Your task to perform on an android device: Open Chrome and go to settings Image 0: 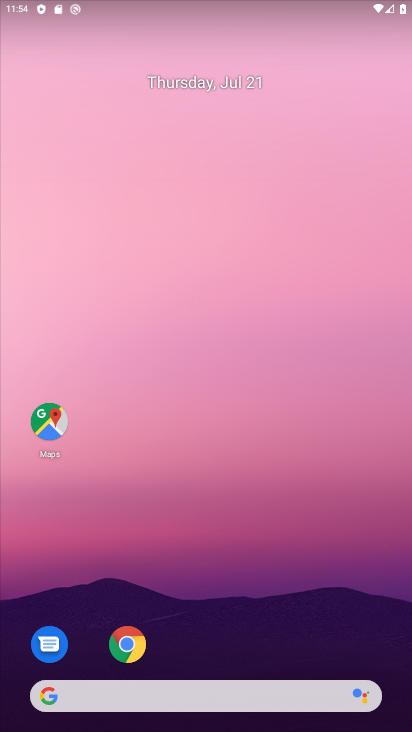
Step 0: drag from (206, 672) to (282, 165)
Your task to perform on an android device: Open Chrome and go to settings Image 1: 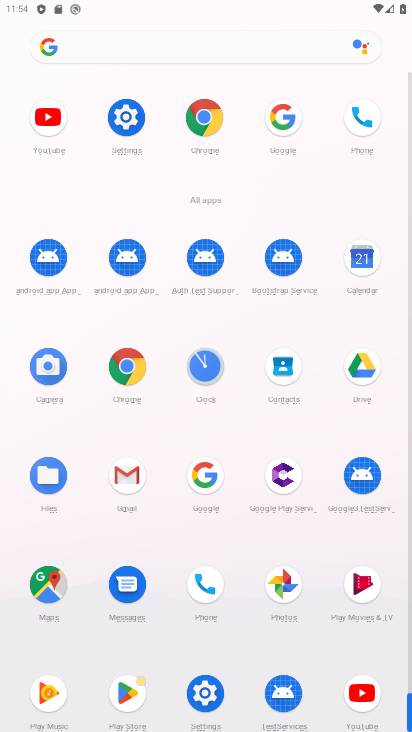
Step 1: click (203, 137)
Your task to perform on an android device: Open Chrome and go to settings Image 2: 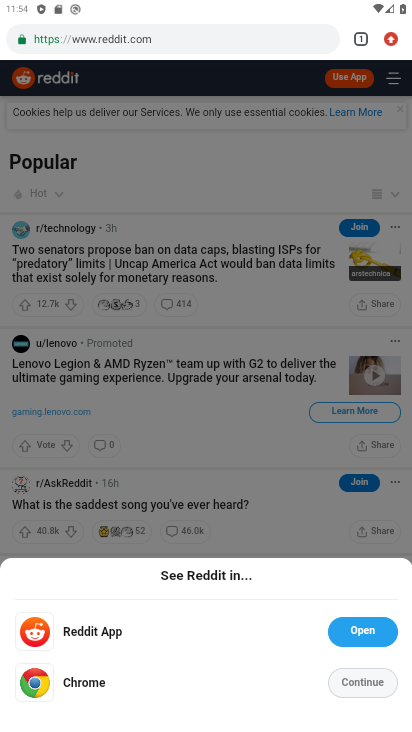
Step 2: click (389, 46)
Your task to perform on an android device: Open Chrome and go to settings Image 3: 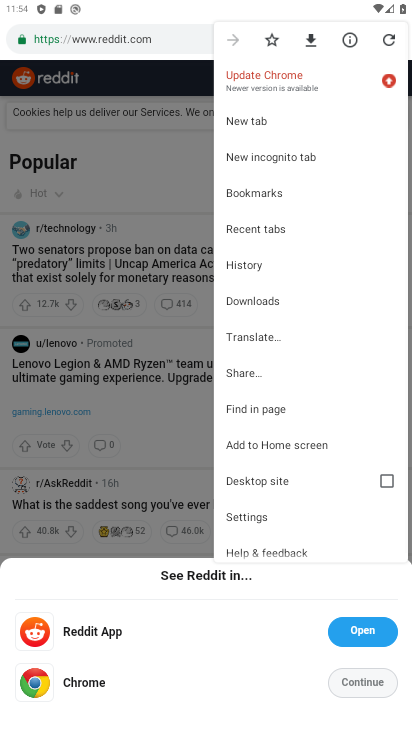
Step 3: drag from (294, 464) to (315, 130)
Your task to perform on an android device: Open Chrome and go to settings Image 4: 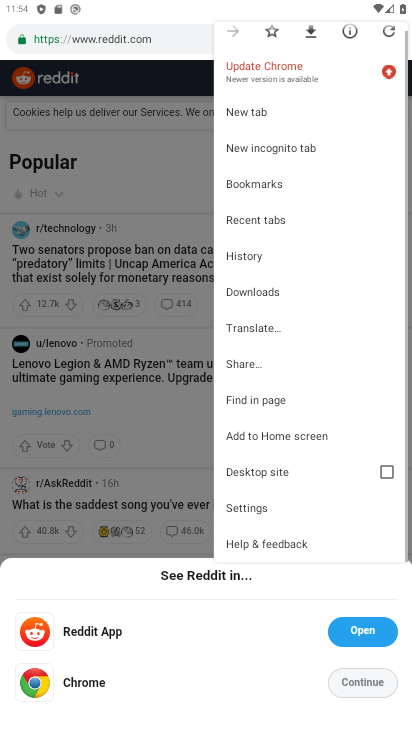
Step 4: click (273, 508)
Your task to perform on an android device: Open Chrome and go to settings Image 5: 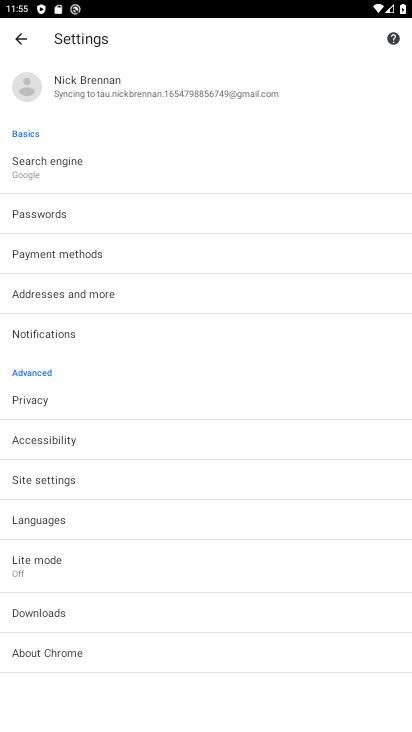
Step 5: task complete